Your task to perform on an android device: Open the stopwatch Image 0: 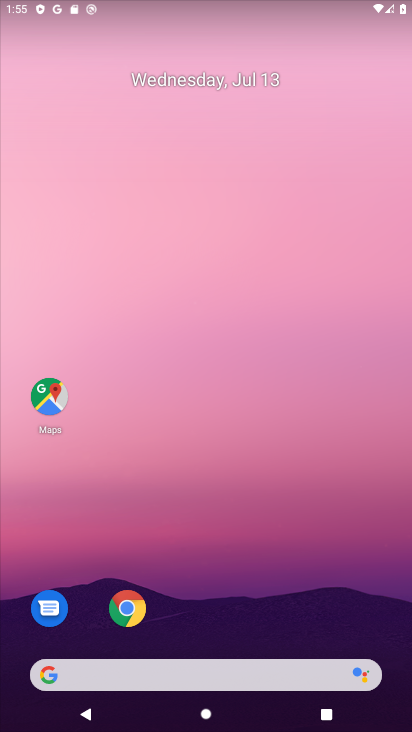
Step 0: drag from (213, 620) to (184, 60)
Your task to perform on an android device: Open the stopwatch Image 1: 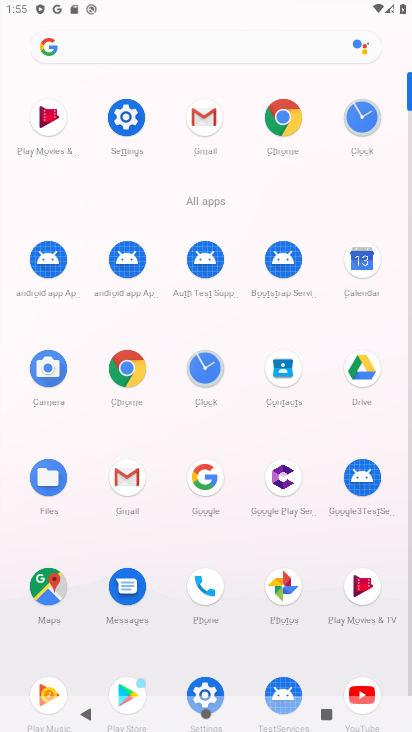
Step 1: click (365, 126)
Your task to perform on an android device: Open the stopwatch Image 2: 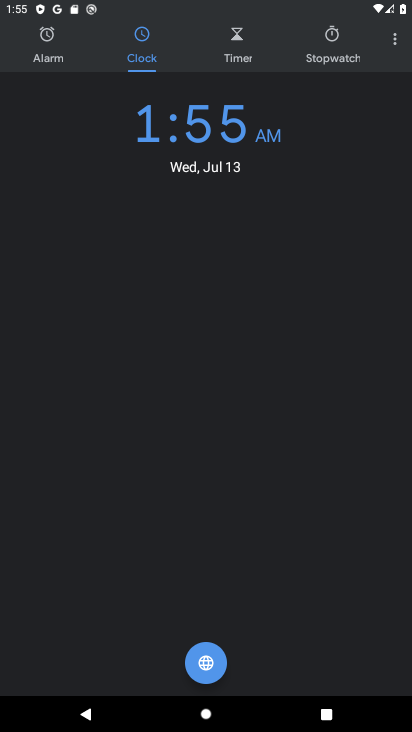
Step 2: click (328, 39)
Your task to perform on an android device: Open the stopwatch Image 3: 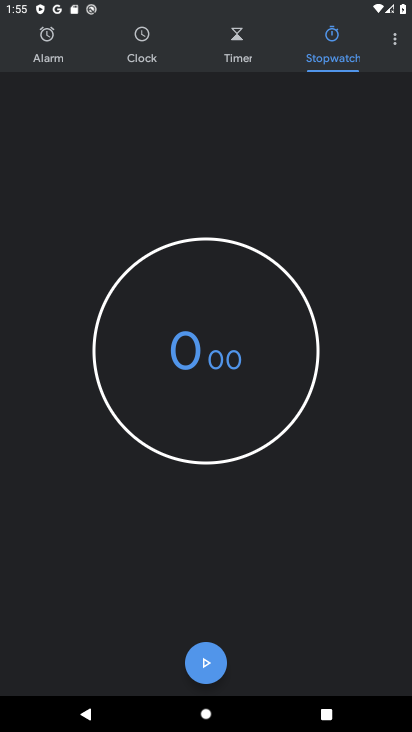
Step 3: task complete